Your task to perform on an android device: View the shopping cart on target. Image 0: 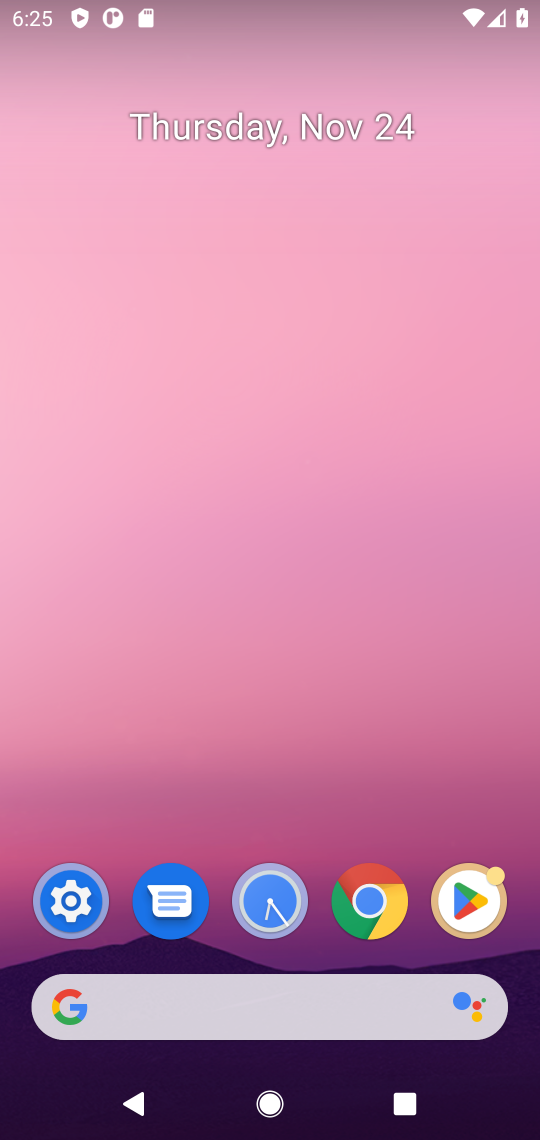
Step 0: click (367, 907)
Your task to perform on an android device: View the shopping cart on target. Image 1: 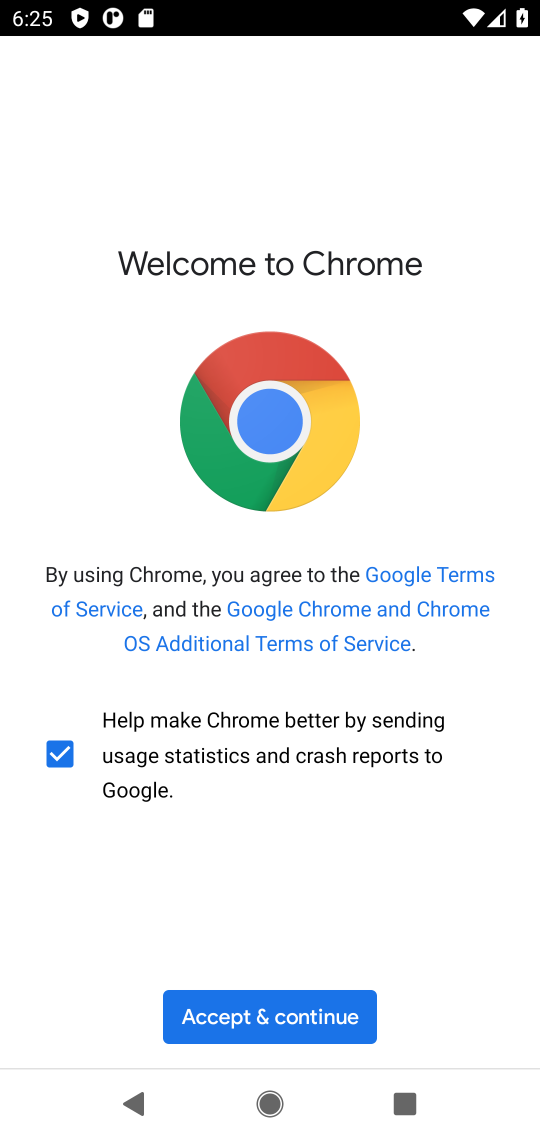
Step 1: click (250, 1022)
Your task to perform on an android device: View the shopping cart on target. Image 2: 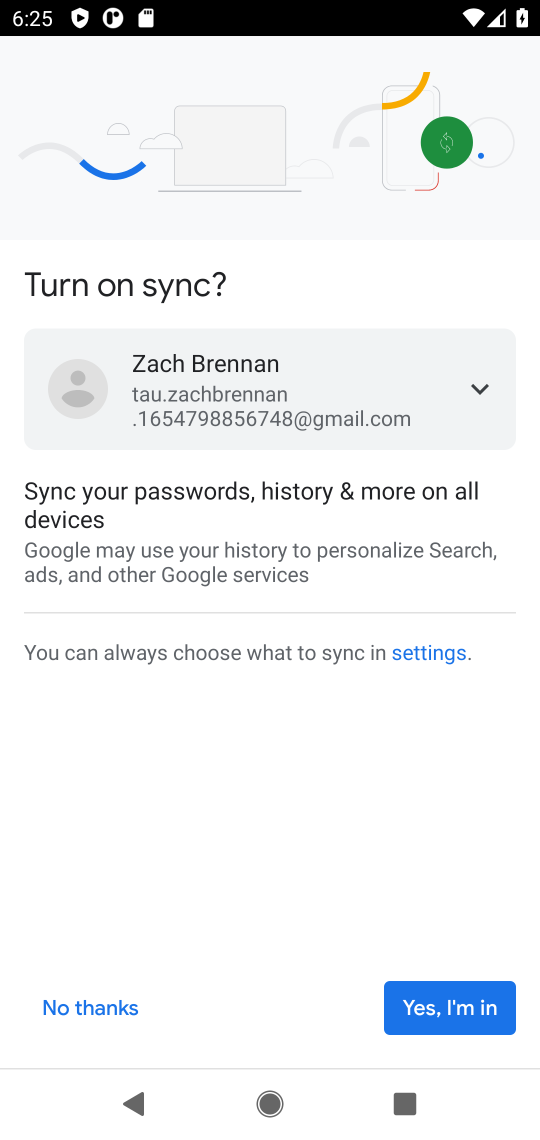
Step 2: click (455, 1007)
Your task to perform on an android device: View the shopping cart on target. Image 3: 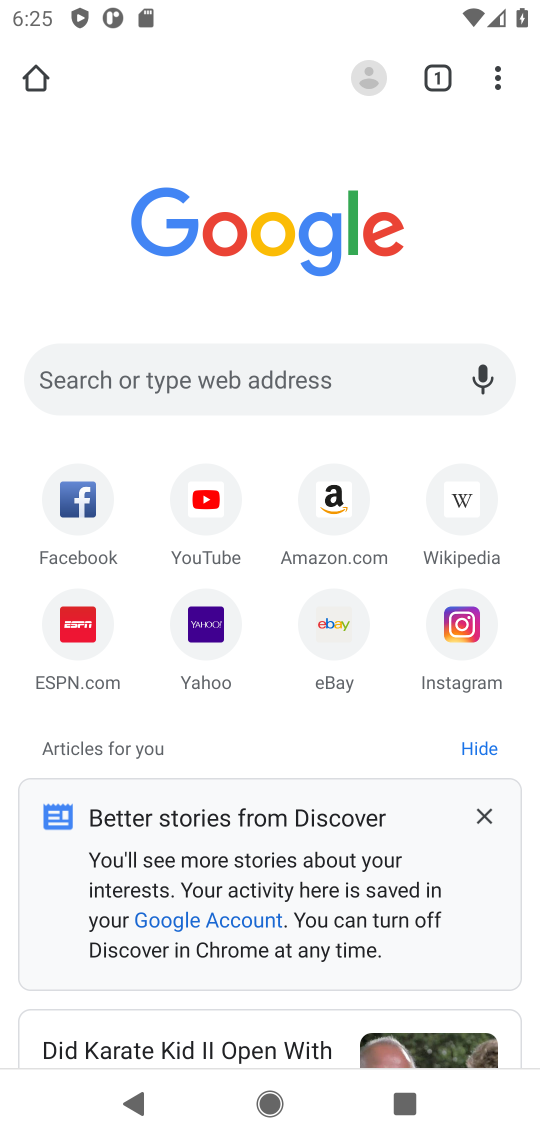
Step 3: click (271, 368)
Your task to perform on an android device: View the shopping cart on target. Image 4: 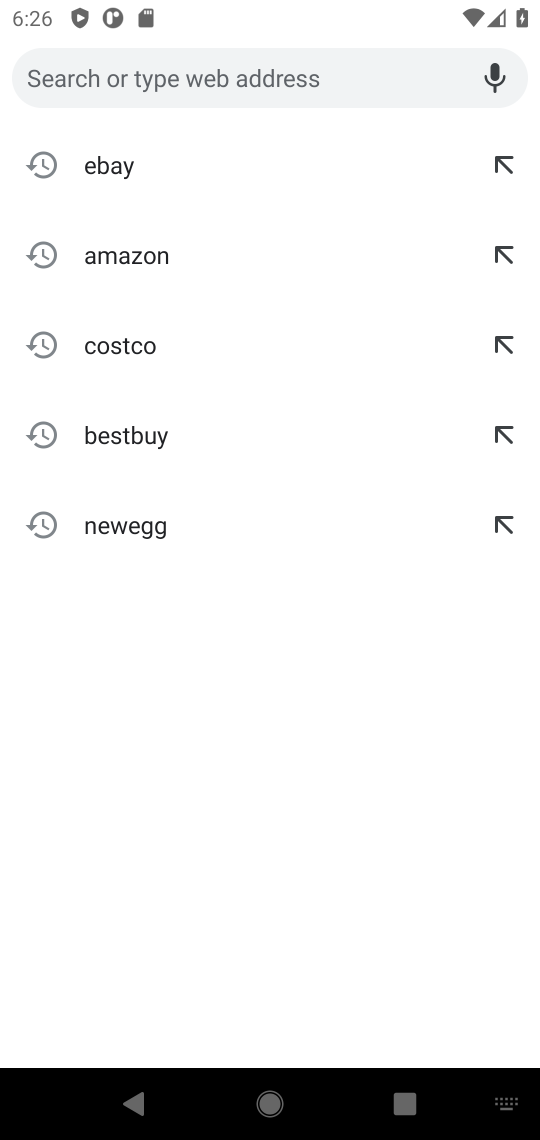
Step 4: type "target"
Your task to perform on an android device: View the shopping cart on target. Image 5: 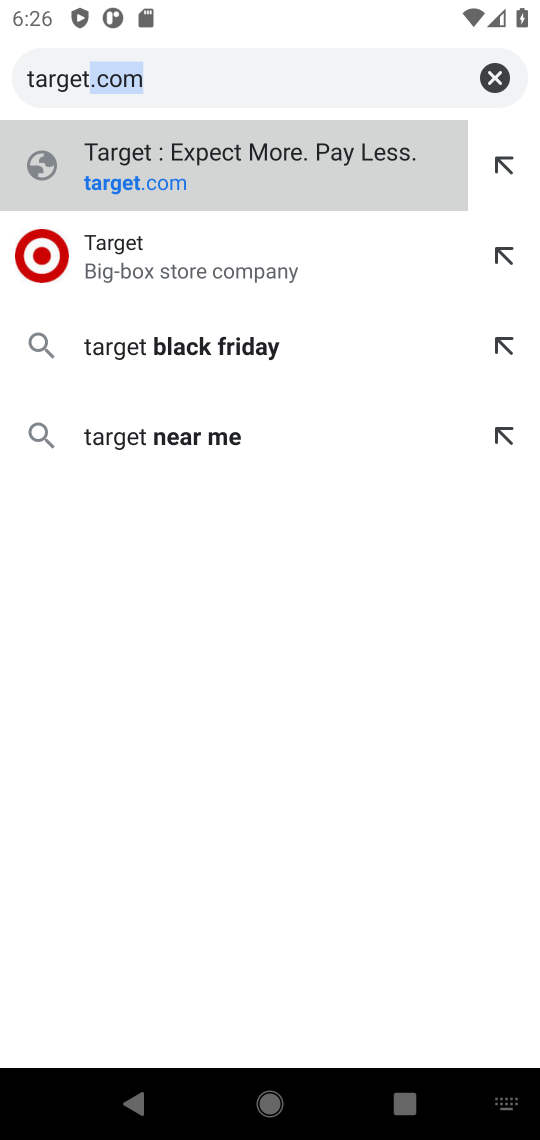
Step 5: click (249, 163)
Your task to perform on an android device: View the shopping cart on target. Image 6: 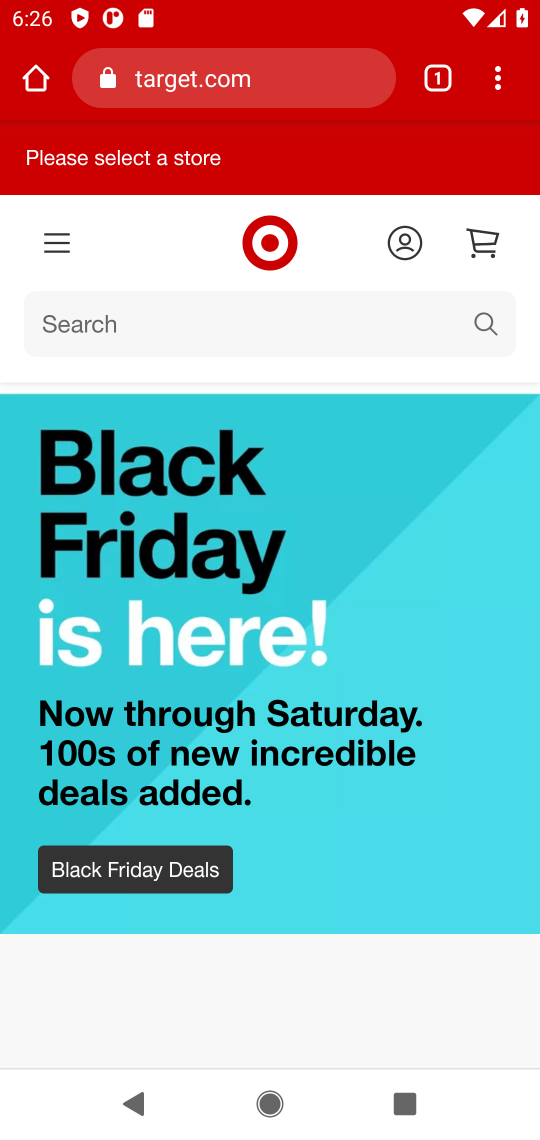
Step 6: click (496, 242)
Your task to perform on an android device: View the shopping cart on target. Image 7: 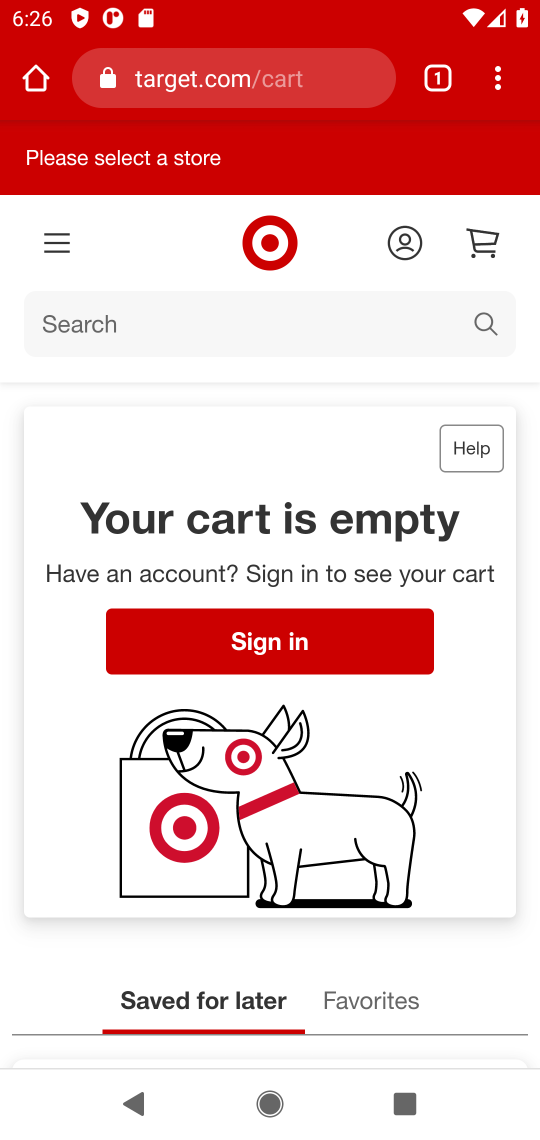
Step 7: task complete